Your task to perform on an android device: Open the stopwatch Image 0: 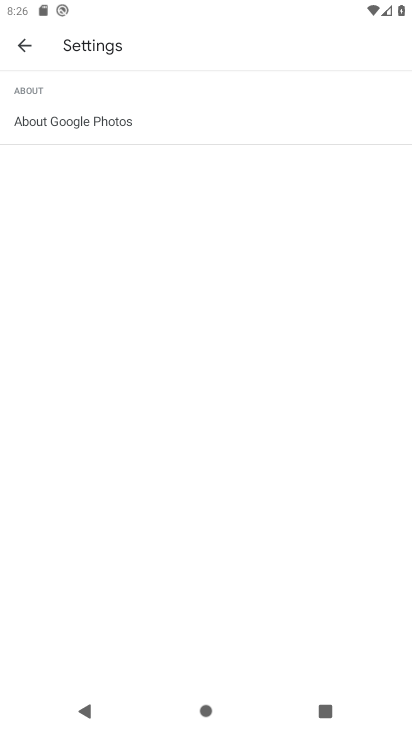
Step 0: press home button
Your task to perform on an android device: Open the stopwatch Image 1: 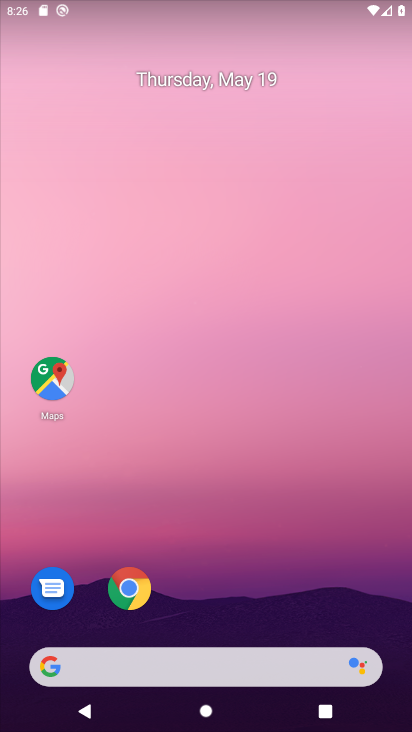
Step 1: drag from (344, 575) to (374, 117)
Your task to perform on an android device: Open the stopwatch Image 2: 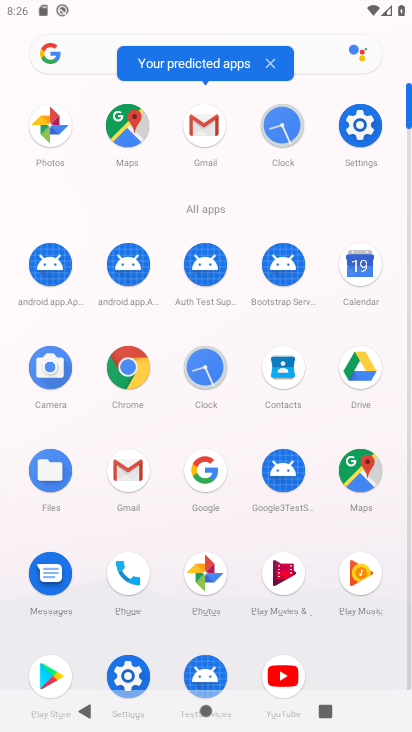
Step 2: click (215, 387)
Your task to perform on an android device: Open the stopwatch Image 3: 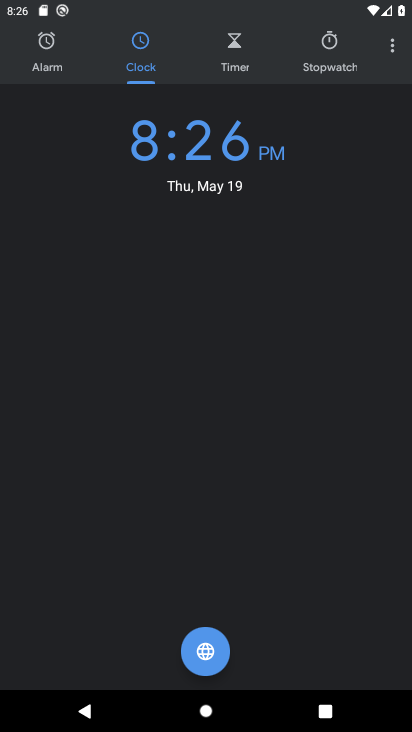
Step 3: click (334, 60)
Your task to perform on an android device: Open the stopwatch Image 4: 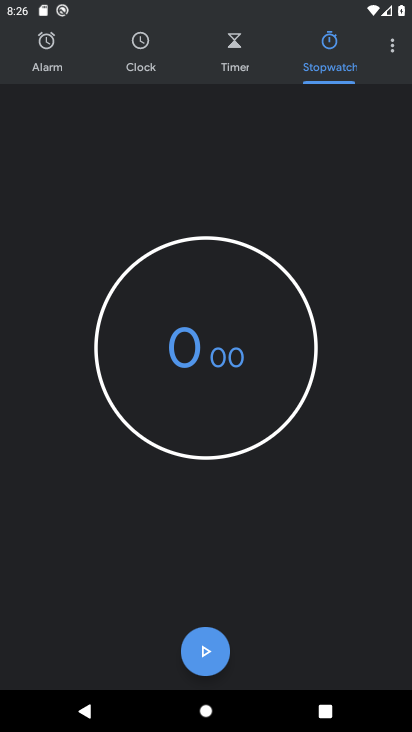
Step 4: task complete